Your task to perform on an android device: open app "Reddit" Image 0: 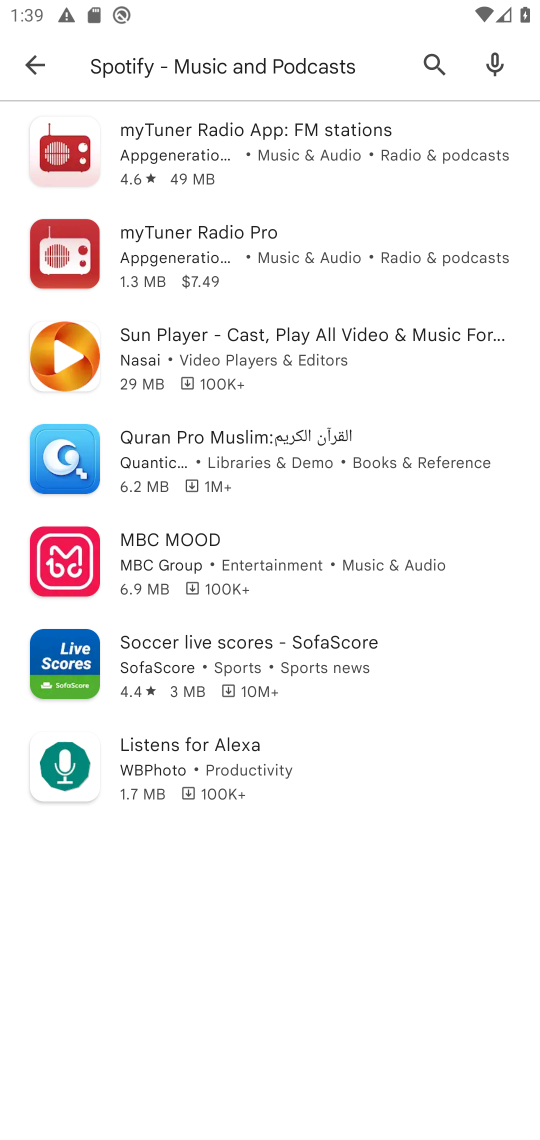
Step 0: press home button
Your task to perform on an android device: open app "Reddit" Image 1: 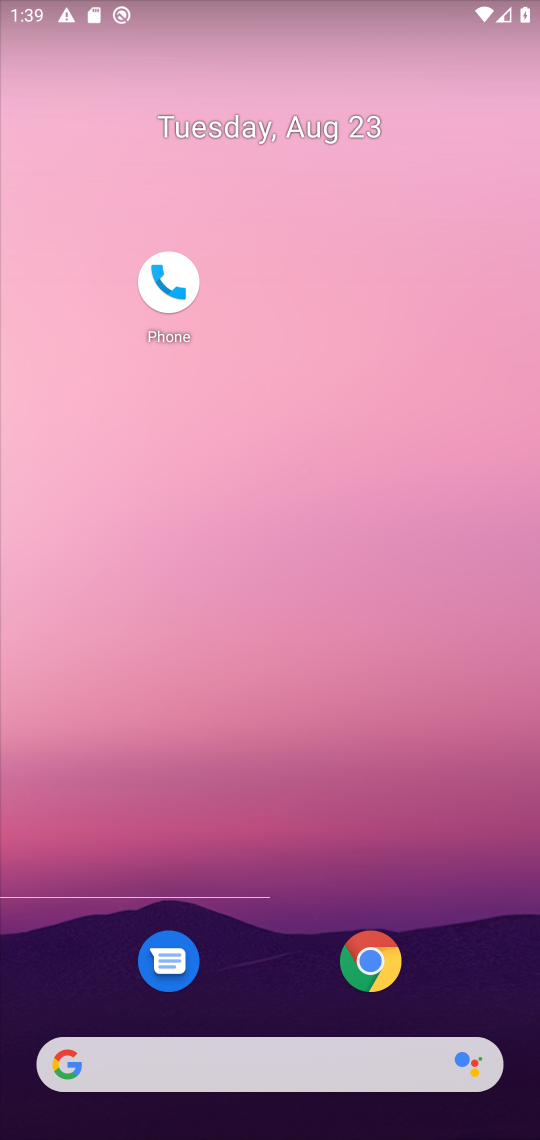
Step 1: drag from (273, 980) to (282, 84)
Your task to perform on an android device: open app "Reddit" Image 2: 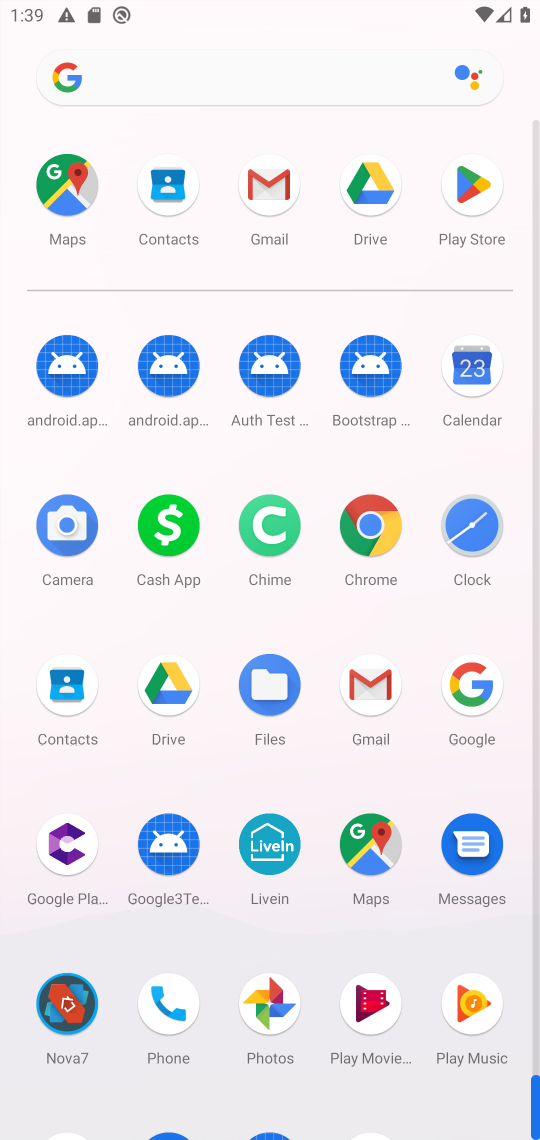
Step 2: click (463, 176)
Your task to perform on an android device: open app "Reddit" Image 3: 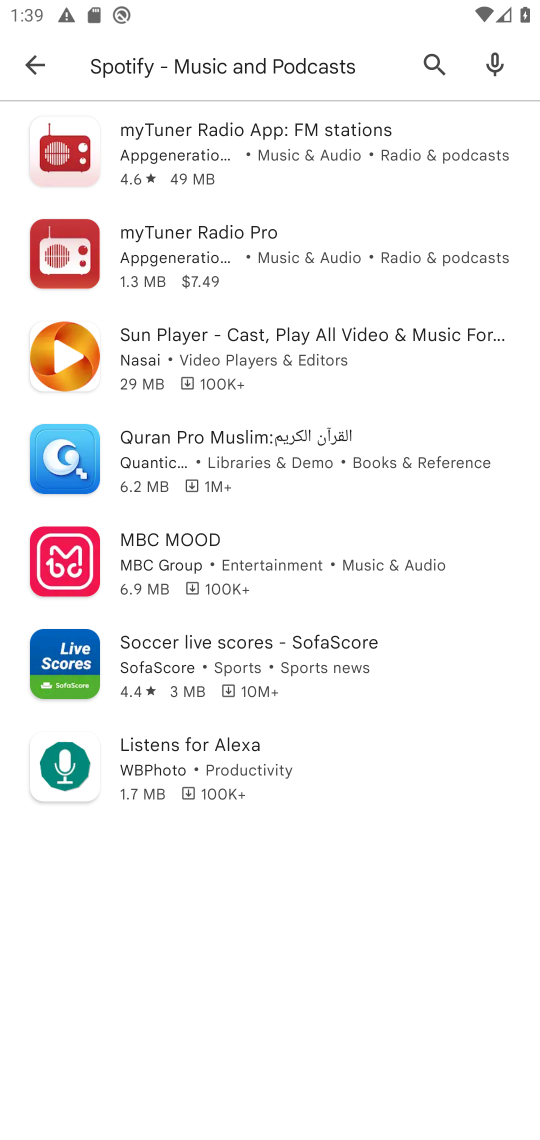
Step 3: click (409, 74)
Your task to perform on an android device: open app "Reddit" Image 4: 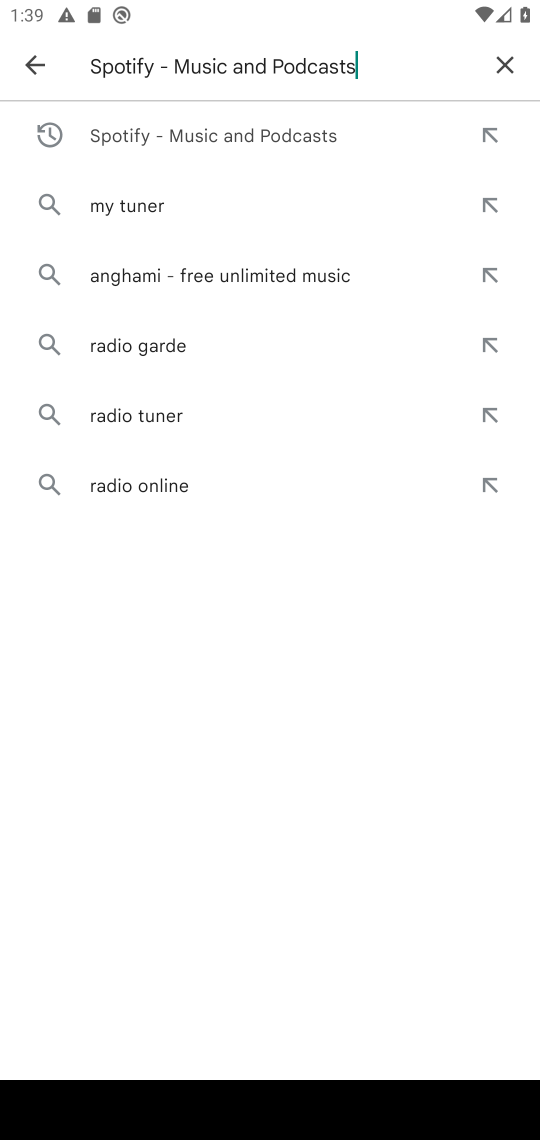
Step 4: click (507, 77)
Your task to perform on an android device: open app "Reddit" Image 5: 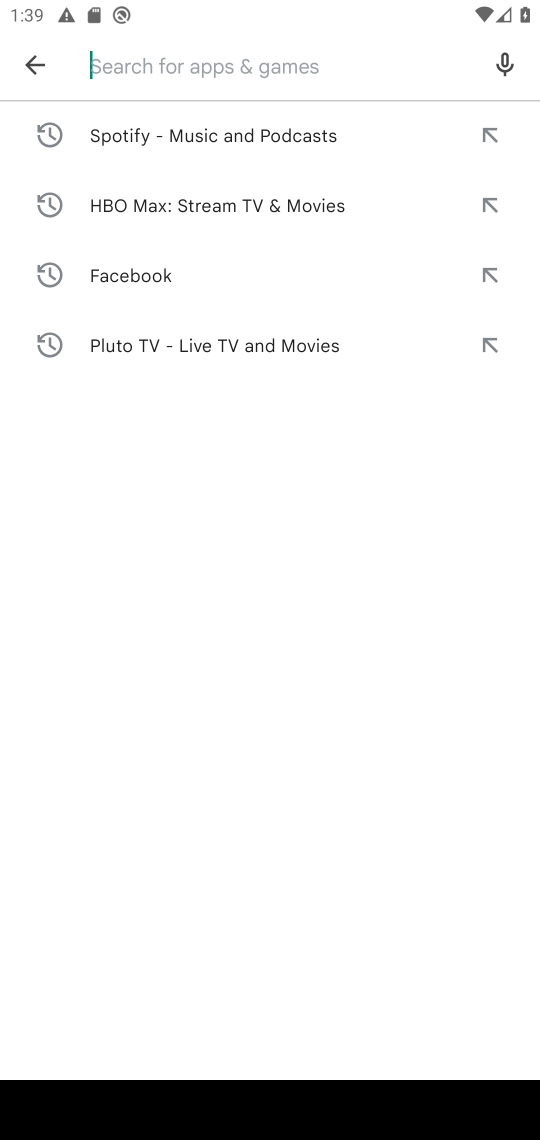
Step 5: type "reddit"
Your task to perform on an android device: open app "Reddit" Image 6: 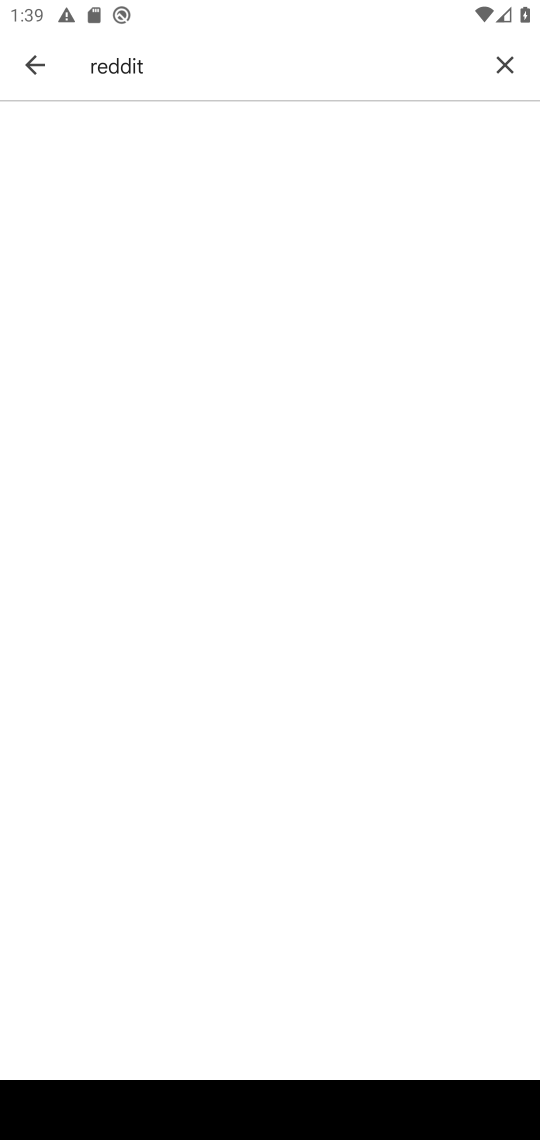
Step 6: task complete